Your task to perform on an android device: set an alarm Image 0: 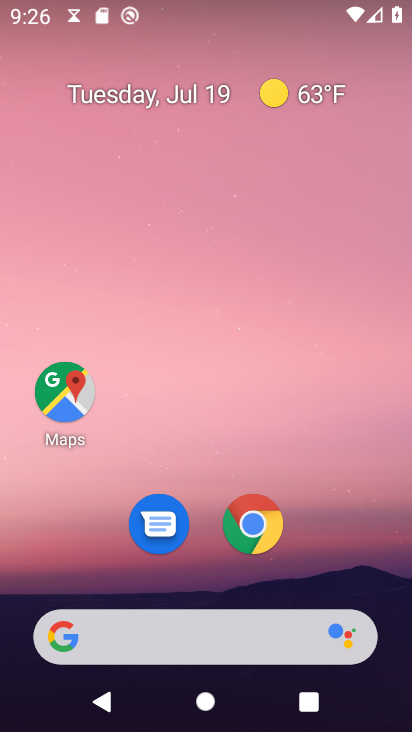
Step 0: press home button
Your task to perform on an android device: set an alarm Image 1: 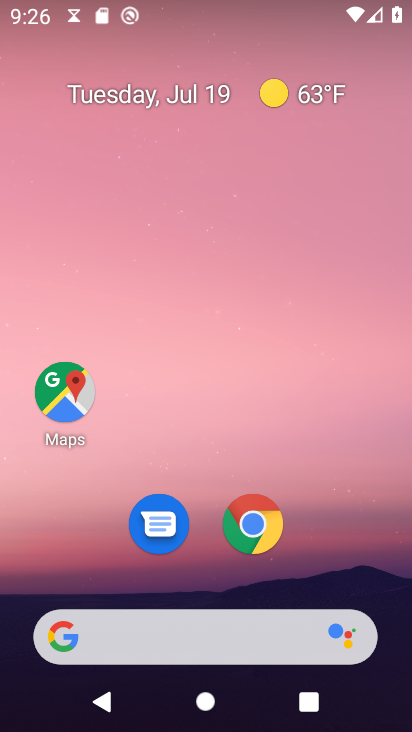
Step 1: drag from (182, 631) to (320, 27)
Your task to perform on an android device: set an alarm Image 2: 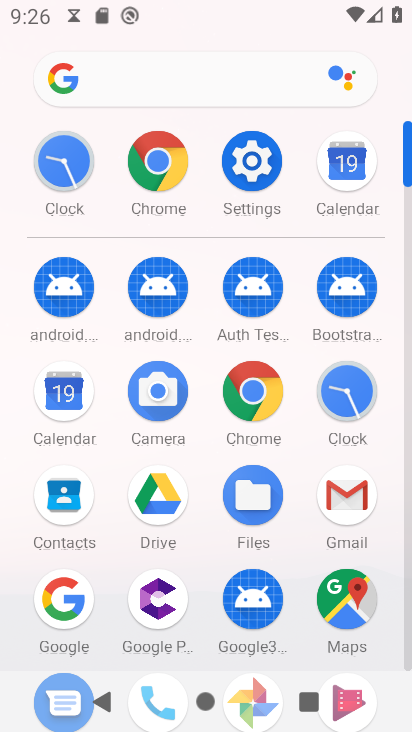
Step 2: click (330, 405)
Your task to perform on an android device: set an alarm Image 3: 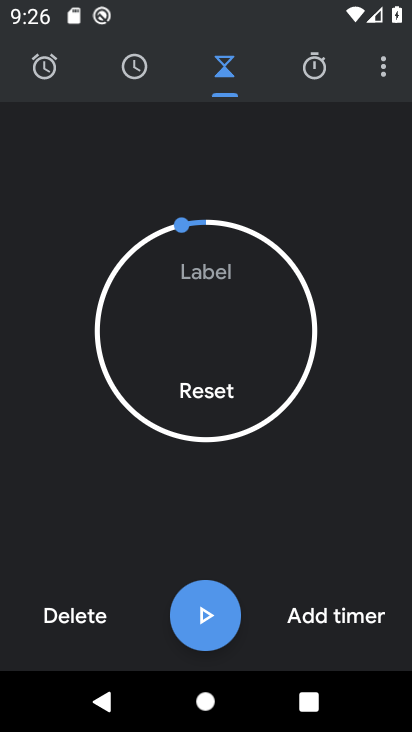
Step 3: click (48, 71)
Your task to perform on an android device: set an alarm Image 4: 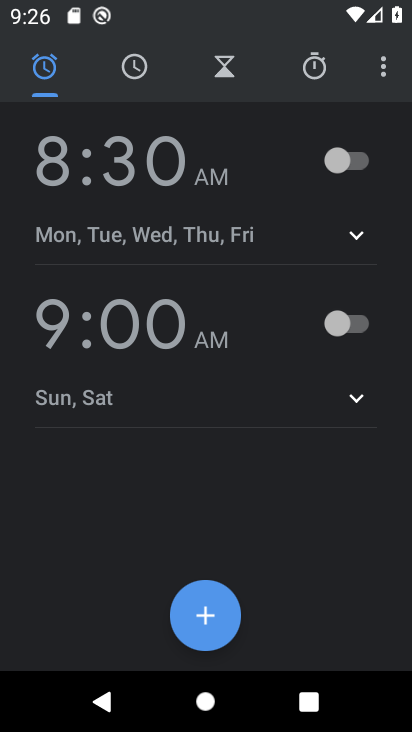
Step 4: click (361, 157)
Your task to perform on an android device: set an alarm Image 5: 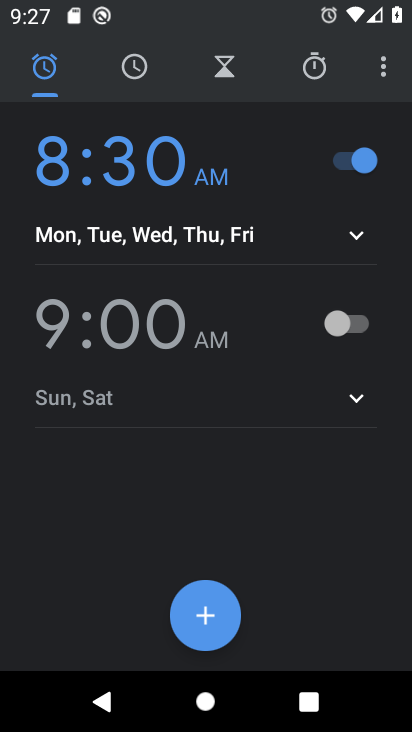
Step 5: task complete